Your task to perform on an android device: check android version Image 0: 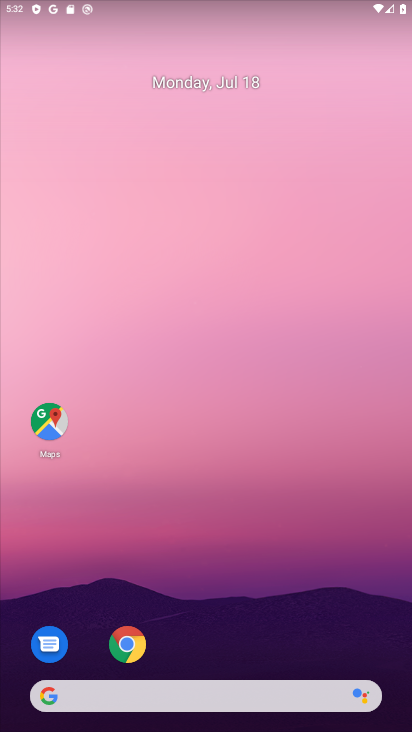
Step 0: press home button
Your task to perform on an android device: check android version Image 1: 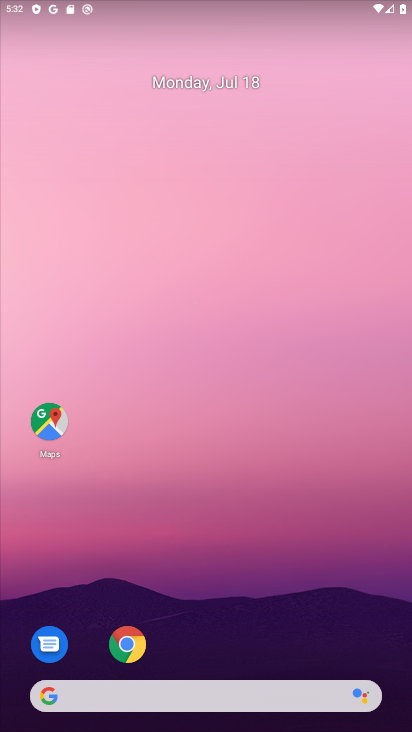
Step 1: drag from (292, 573) to (323, 174)
Your task to perform on an android device: check android version Image 2: 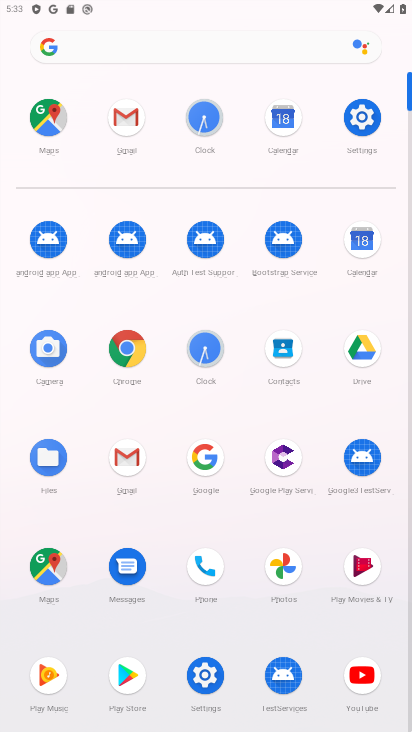
Step 2: click (365, 118)
Your task to perform on an android device: check android version Image 3: 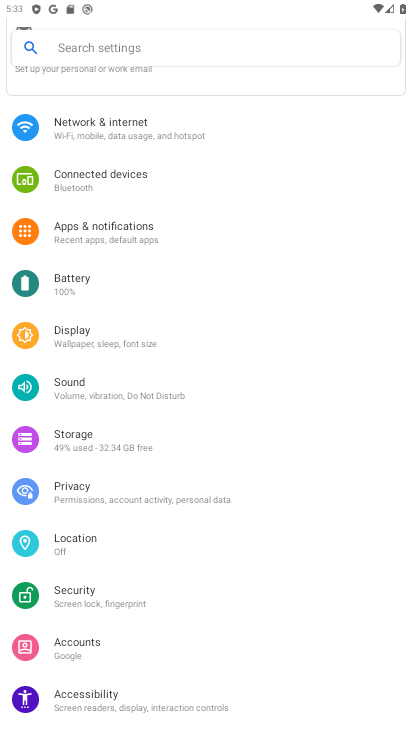
Step 3: drag from (152, 648) to (191, 181)
Your task to perform on an android device: check android version Image 4: 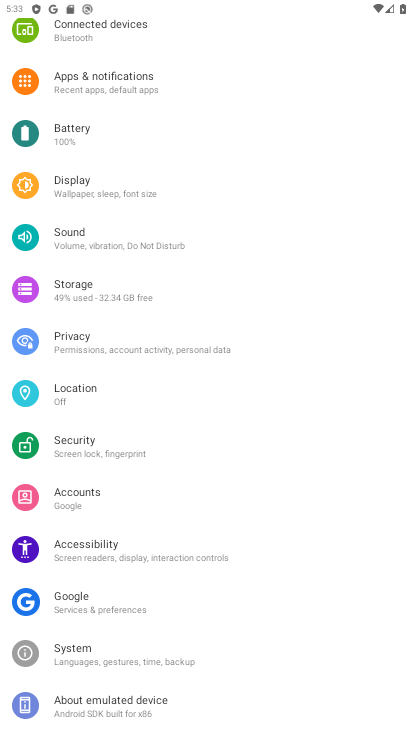
Step 4: click (127, 709)
Your task to perform on an android device: check android version Image 5: 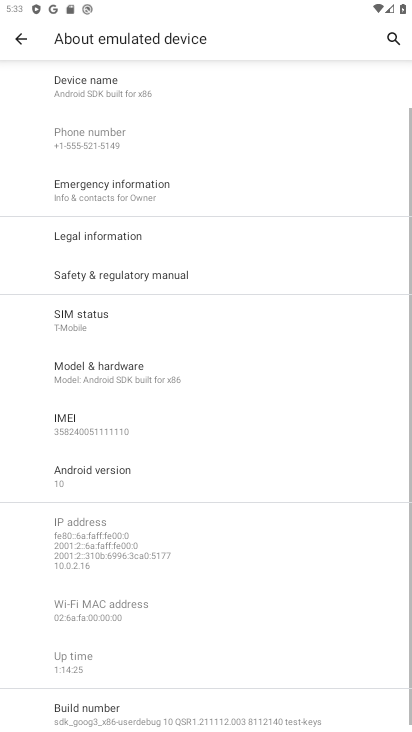
Step 5: click (97, 467)
Your task to perform on an android device: check android version Image 6: 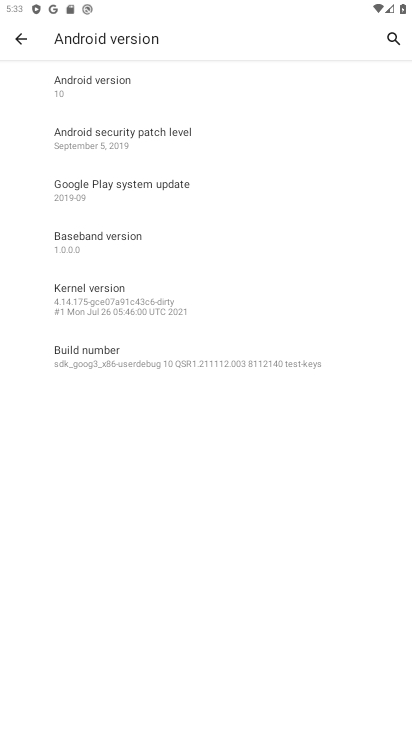
Step 6: task complete